Your task to perform on an android device: Open Android settings Image 0: 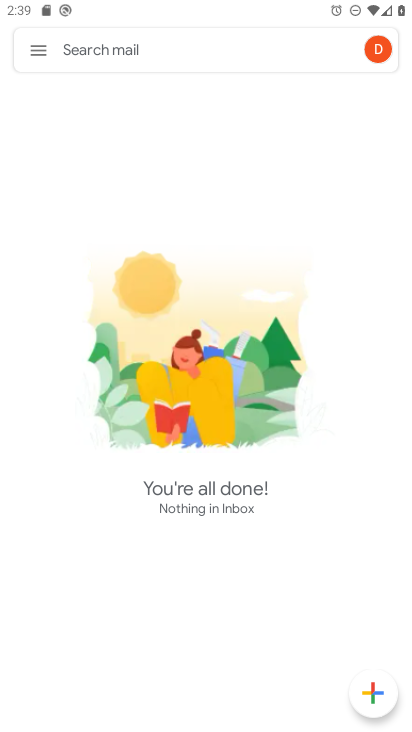
Step 0: press home button
Your task to perform on an android device: Open Android settings Image 1: 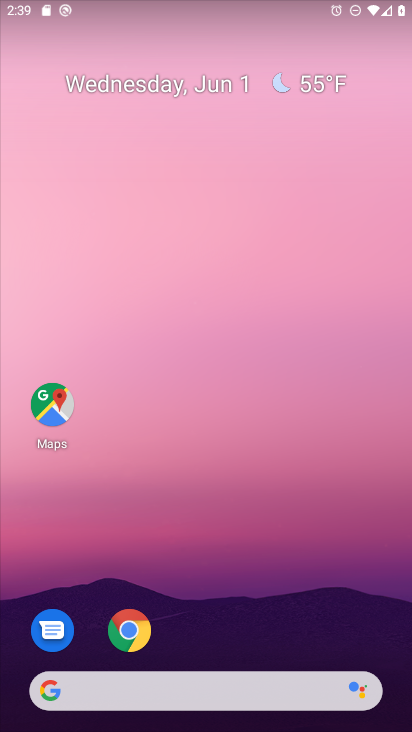
Step 1: drag from (226, 703) to (253, 10)
Your task to perform on an android device: Open Android settings Image 2: 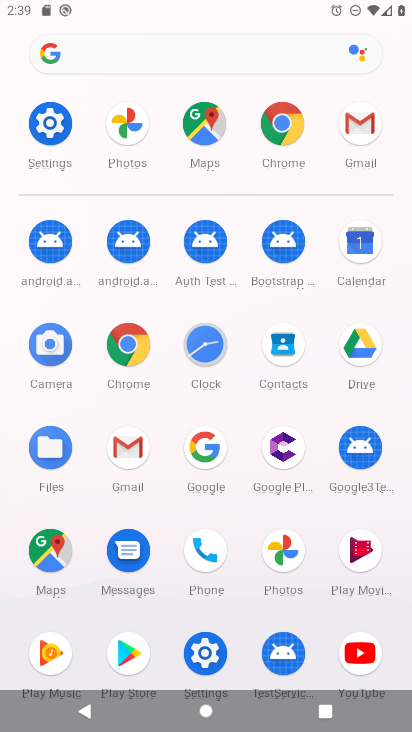
Step 2: click (49, 133)
Your task to perform on an android device: Open Android settings Image 3: 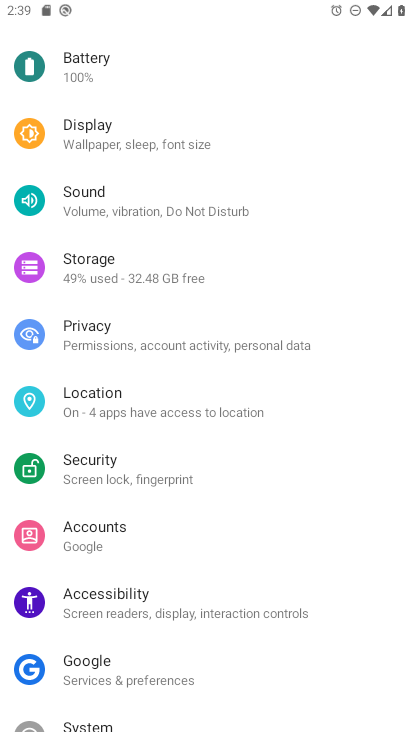
Step 3: drag from (211, 660) to (197, 160)
Your task to perform on an android device: Open Android settings Image 4: 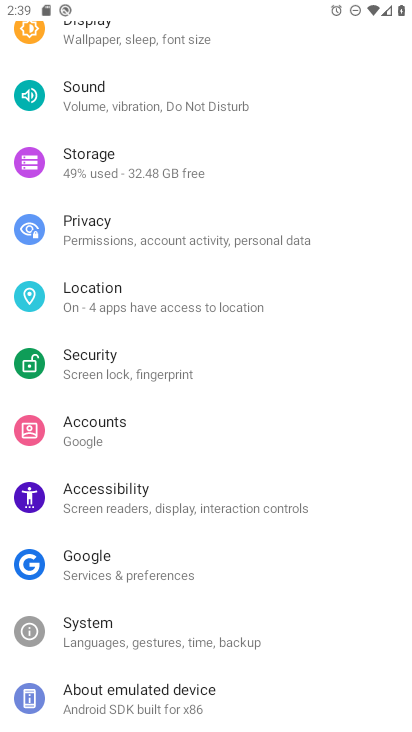
Step 4: click (241, 712)
Your task to perform on an android device: Open Android settings Image 5: 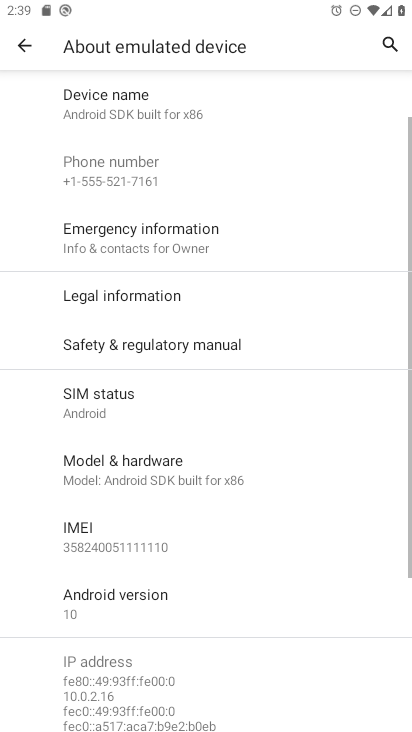
Step 5: click (142, 592)
Your task to perform on an android device: Open Android settings Image 6: 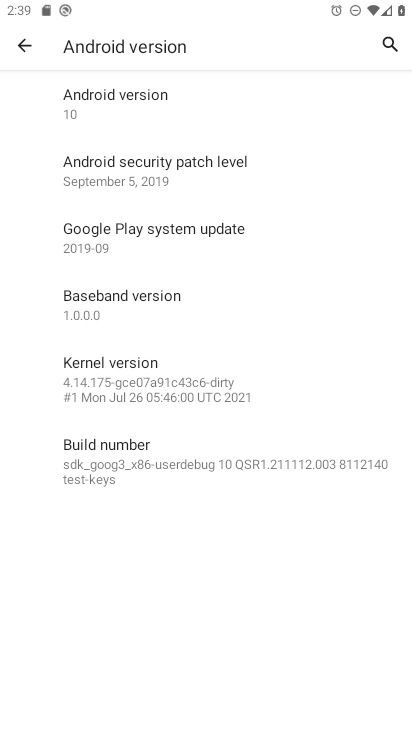
Step 6: task complete